Your task to perform on an android device: open app "Duolingo: language lessons" (install if not already installed) Image 0: 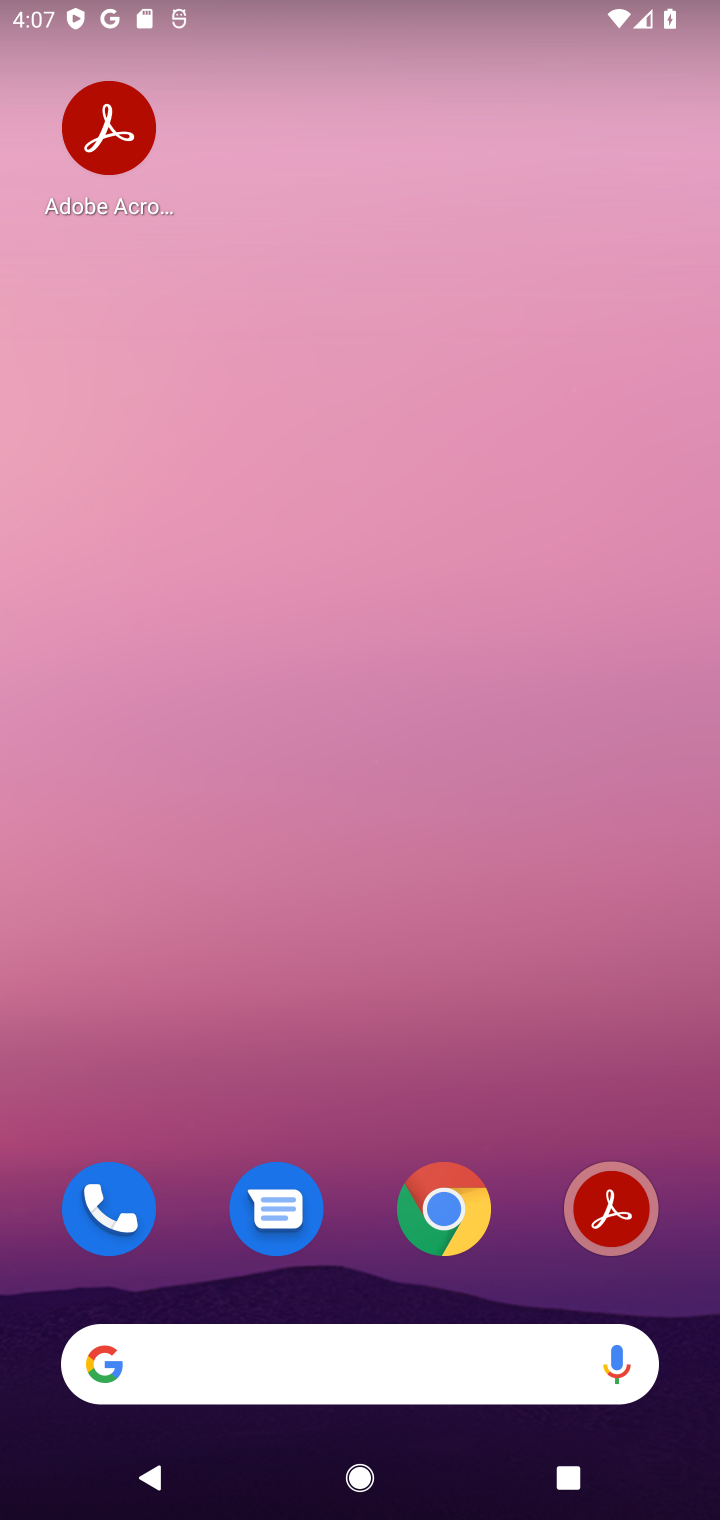
Step 0: task complete